Your task to perform on an android device: What is the recent news? Image 0: 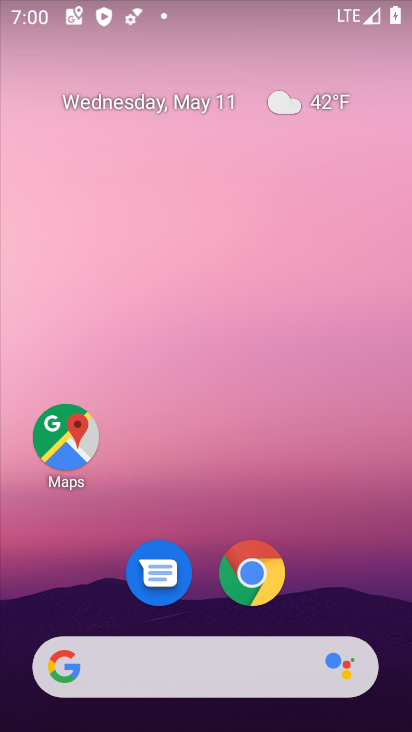
Step 0: click (166, 672)
Your task to perform on an android device: What is the recent news? Image 1: 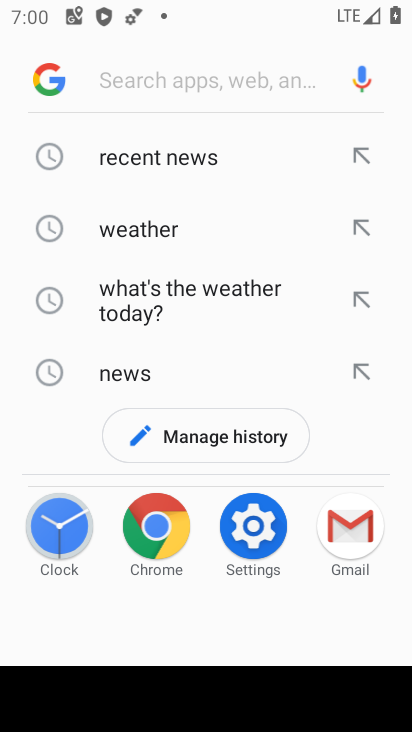
Step 1: click (161, 160)
Your task to perform on an android device: What is the recent news? Image 2: 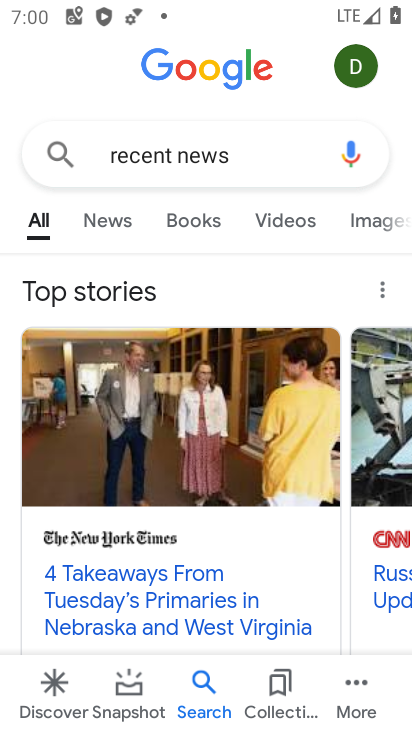
Step 2: task complete